Your task to perform on an android device: Open Wikipedia Image 0: 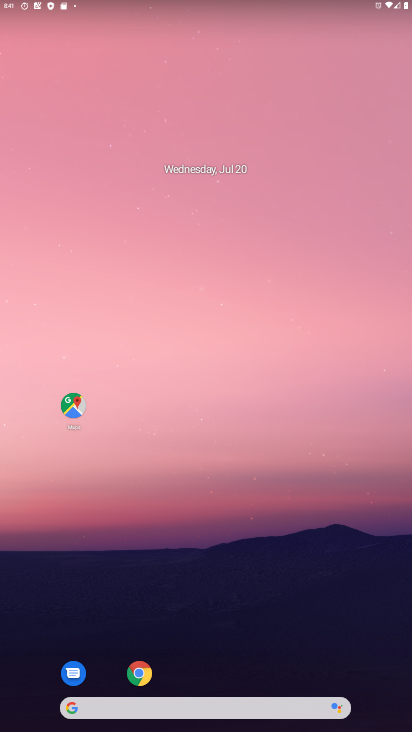
Step 0: click (140, 673)
Your task to perform on an android device: Open Wikipedia Image 1: 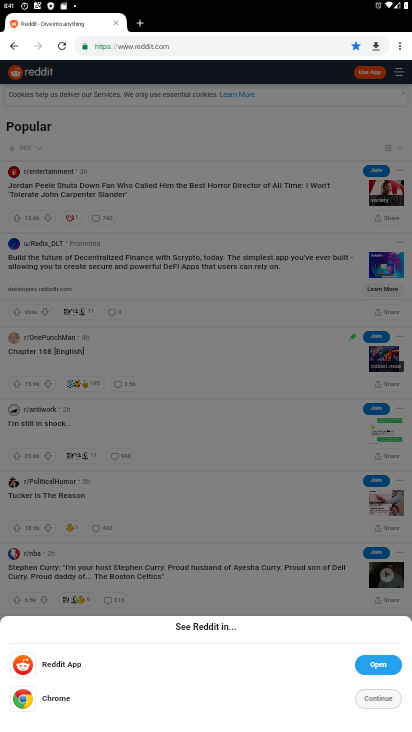
Step 1: click (136, 23)
Your task to perform on an android device: Open Wikipedia Image 2: 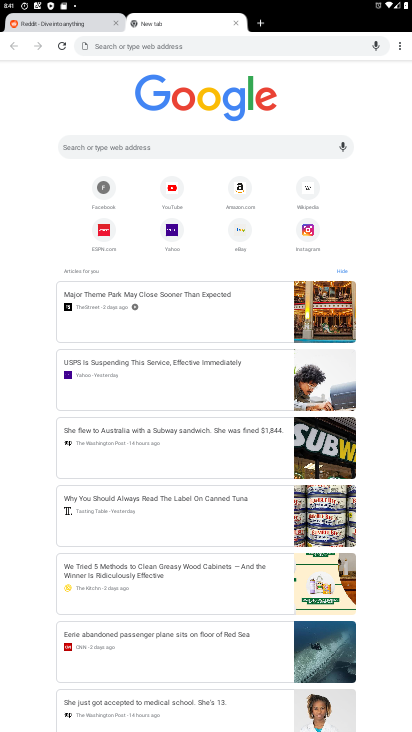
Step 2: click (307, 190)
Your task to perform on an android device: Open Wikipedia Image 3: 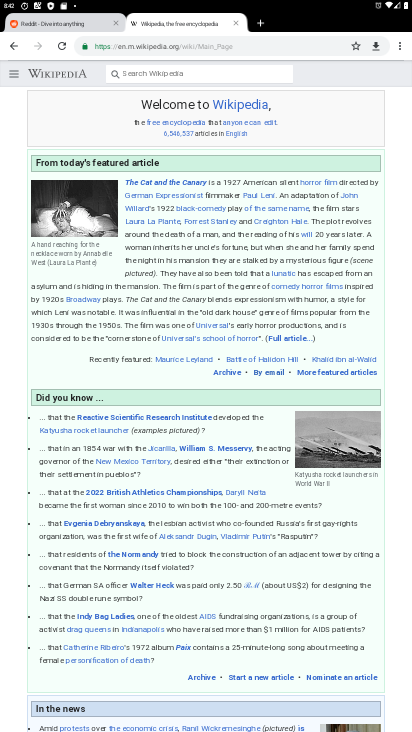
Step 3: task complete